Your task to perform on an android device: Open calendar and show me the third week of next month Image 0: 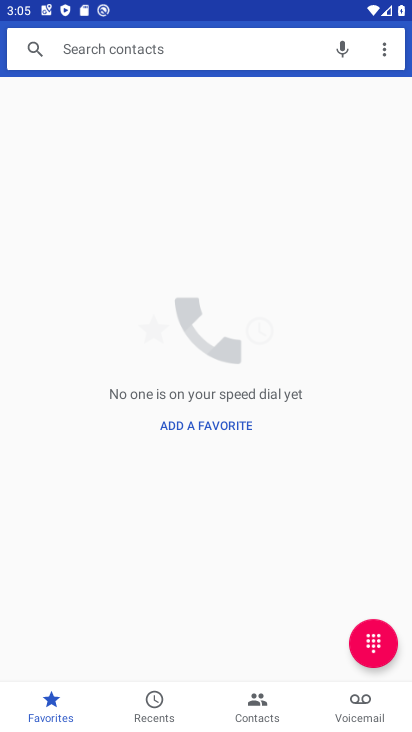
Step 0: press home button
Your task to perform on an android device: Open calendar and show me the third week of next month Image 1: 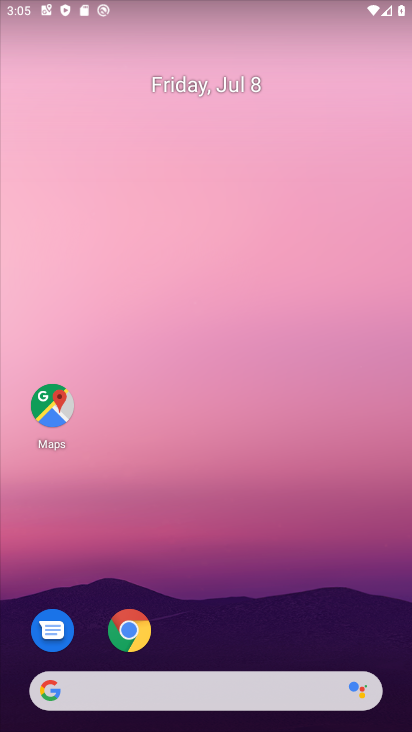
Step 1: drag from (278, 622) to (114, 115)
Your task to perform on an android device: Open calendar and show me the third week of next month Image 2: 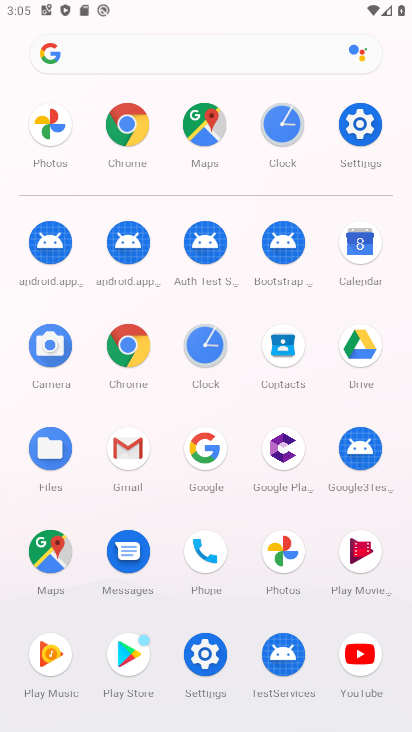
Step 2: click (364, 233)
Your task to perform on an android device: Open calendar and show me the third week of next month Image 3: 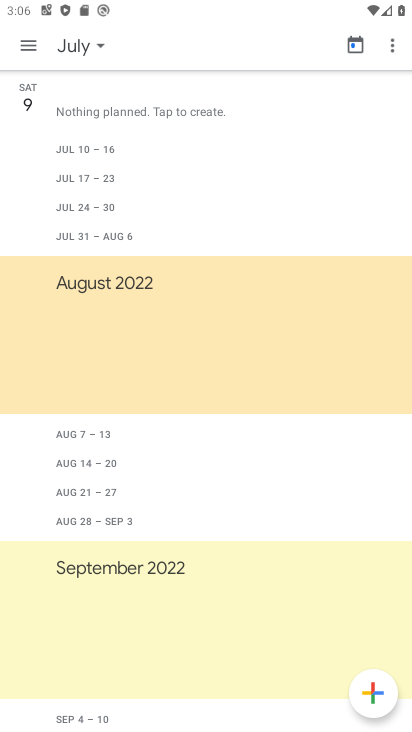
Step 3: task complete